Your task to perform on an android device: Open accessibility settings Image 0: 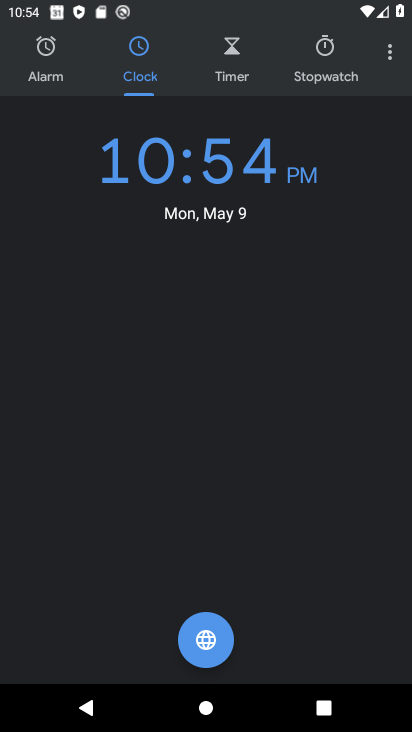
Step 0: press home button
Your task to perform on an android device: Open accessibility settings Image 1: 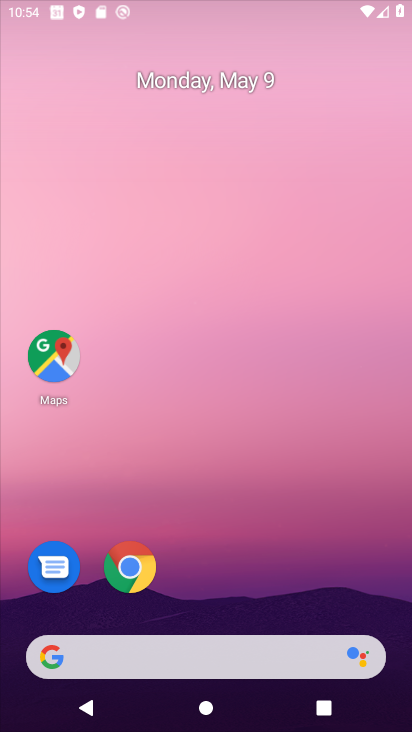
Step 1: drag from (383, 601) to (230, 104)
Your task to perform on an android device: Open accessibility settings Image 2: 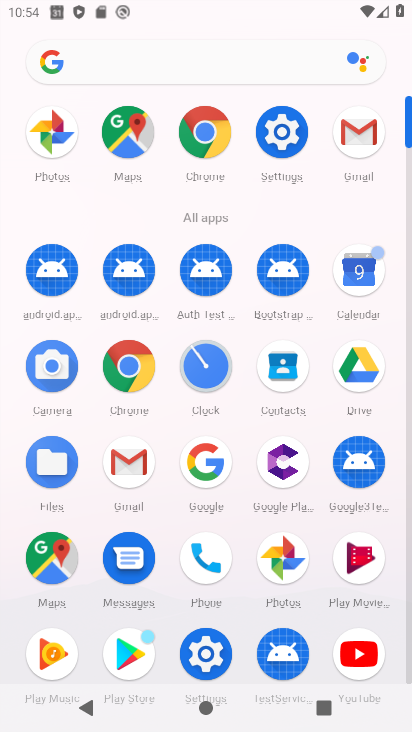
Step 2: click (206, 660)
Your task to perform on an android device: Open accessibility settings Image 3: 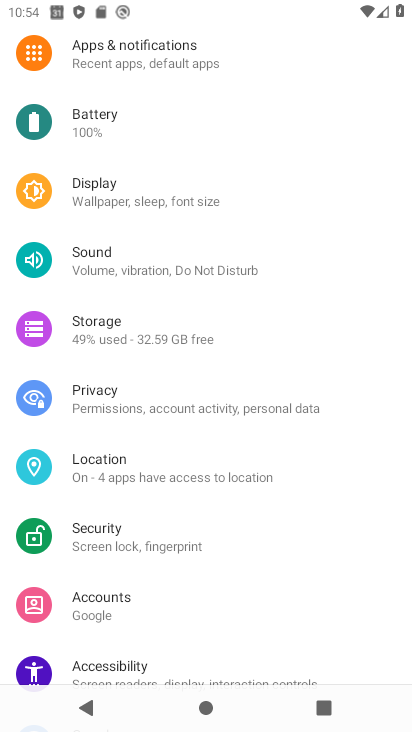
Step 3: click (135, 661)
Your task to perform on an android device: Open accessibility settings Image 4: 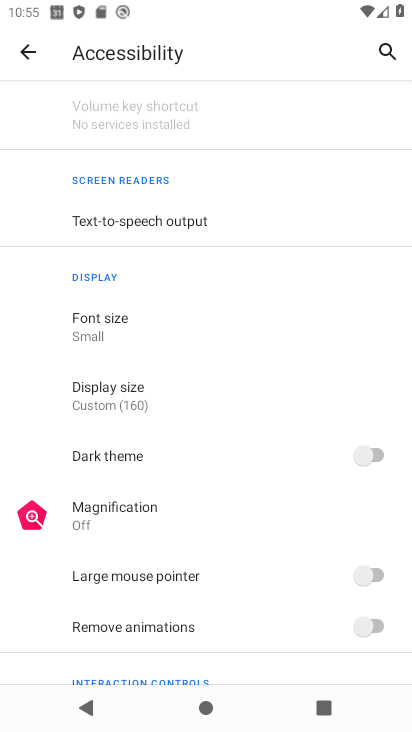
Step 4: task complete